Your task to perform on an android device: set the timer Image 0: 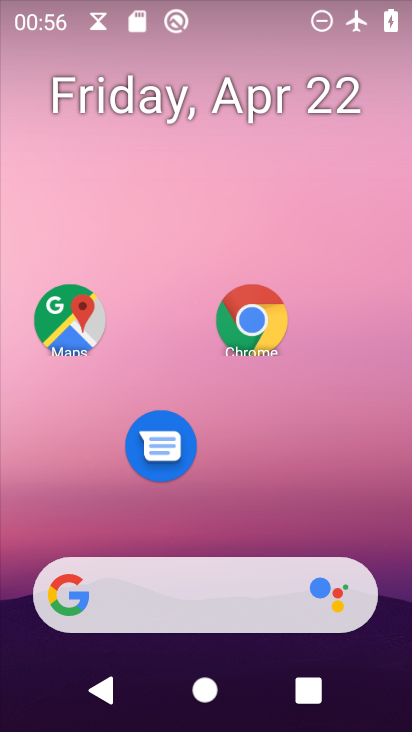
Step 0: drag from (232, 519) to (230, 242)
Your task to perform on an android device: set the timer Image 1: 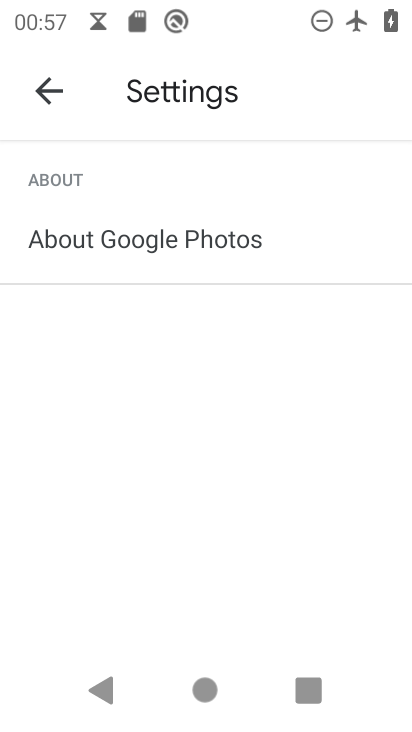
Step 1: task complete